Your task to perform on an android device: Go to accessibility settings Image 0: 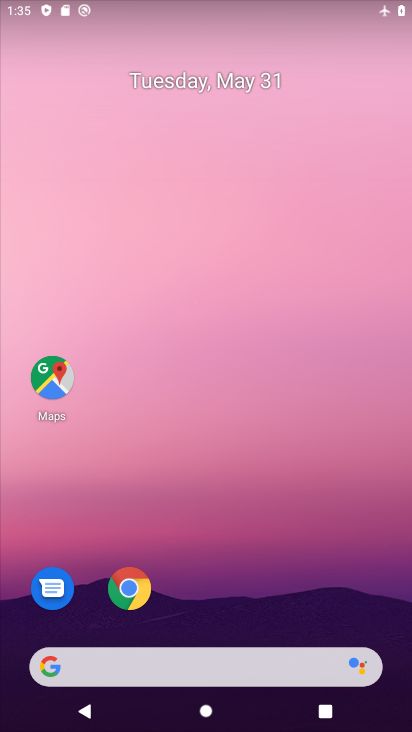
Step 0: drag from (251, 623) to (164, 137)
Your task to perform on an android device: Go to accessibility settings Image 1: 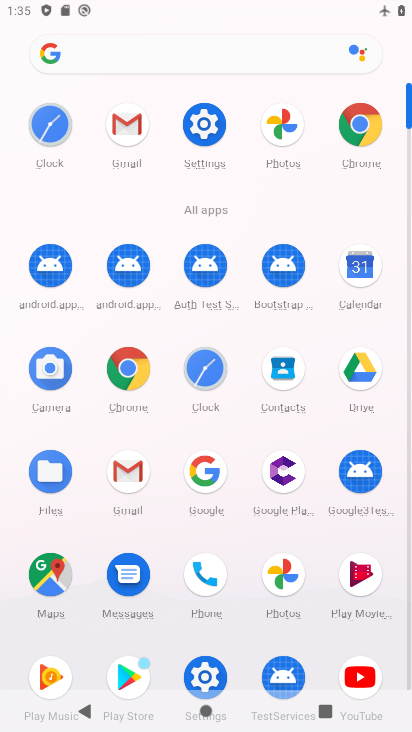
Step 1: click (206, 122)
Your task to perform on an android device: Go to accessibility settings Image 2: 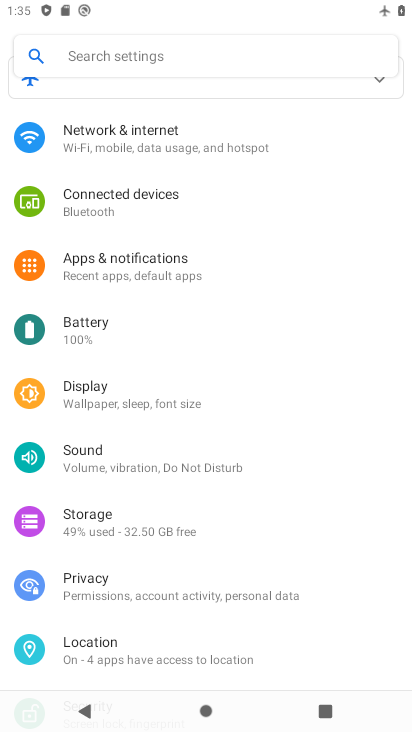
Step 2: drag from (219, 603) to (176, 212)
Your task to perform on an android device: Go to accessibility settings Image 3: 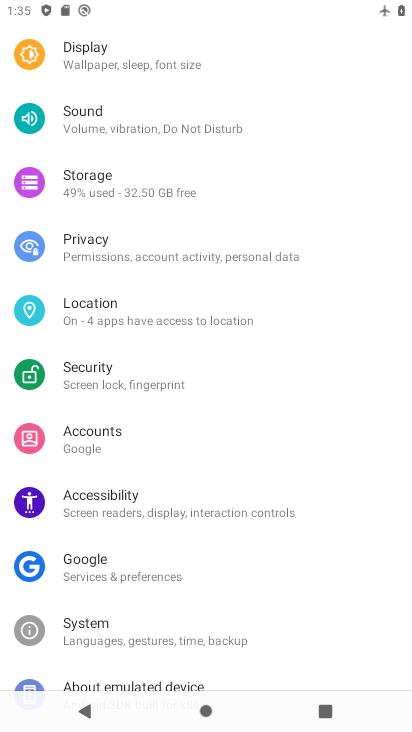
Step 3: click (167, 522)
Your task to perform on an android device: Go to accessibility settings Image 4: 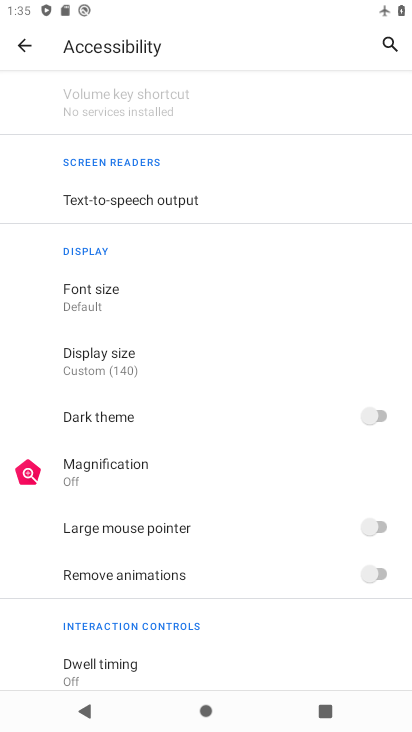
Step 4: task complete